Your task to perform on an android device: move an email to a new category in the gmail app Image 0: 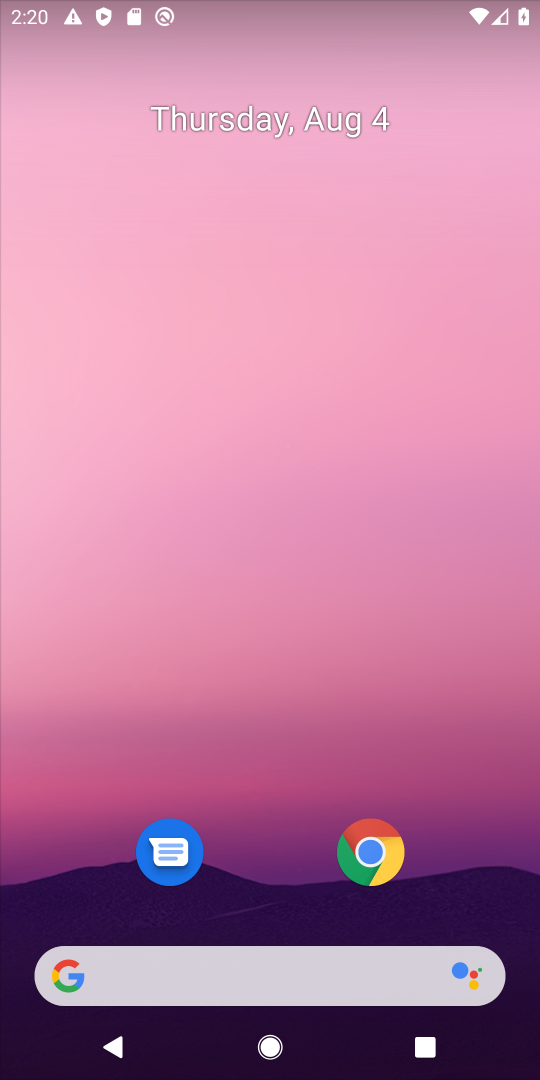
Step 0: drag from (300, 917) to (293, 29)
Your task to perform on an android device: move an email to a new category in the gmail app Image 1: 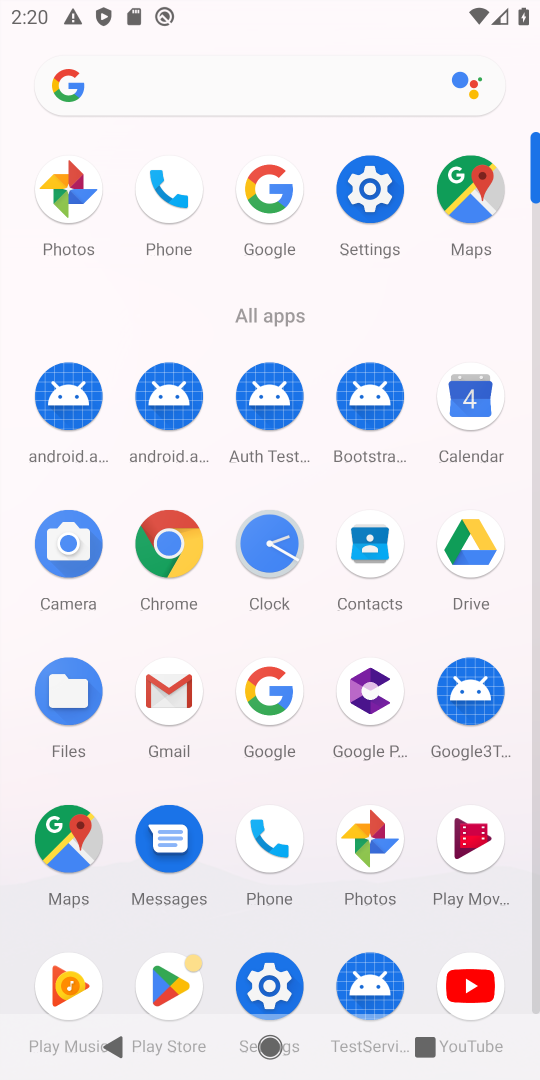
Step 1: click (176, 686)
Your task to perform on an android device: move an email to a new category in the gmail app Image 2: 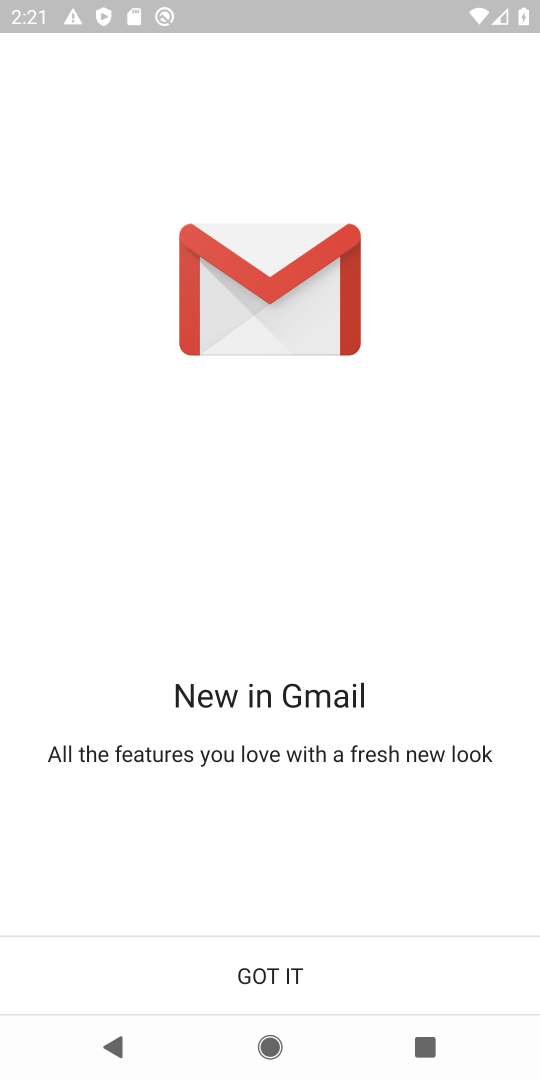
Step 2: click (269, 977)
Your task to perform on an android device: move an email to a new category in the gmail app Image 3: 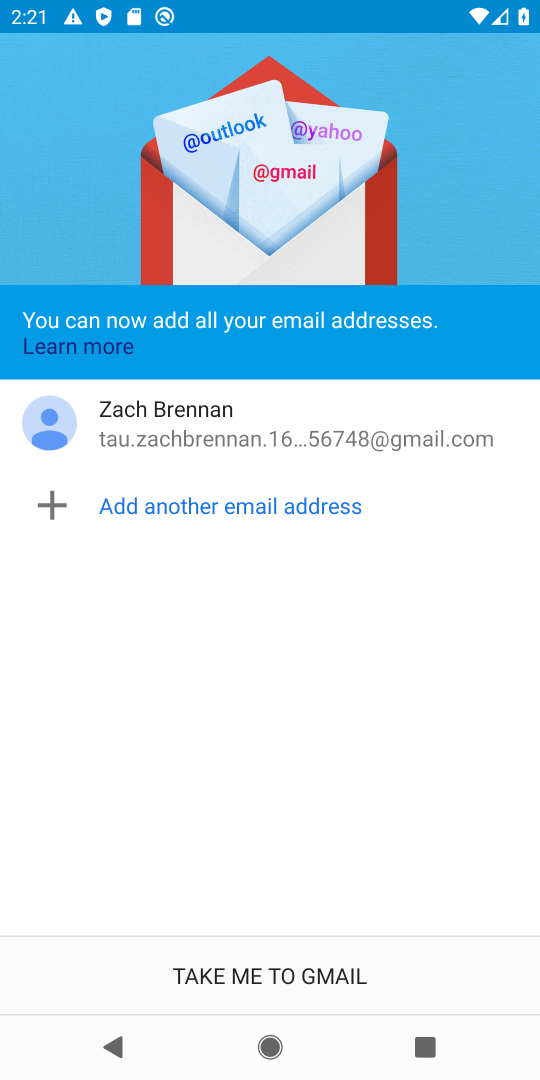
Step 3: click (272, 959)
Your task to perform on an android device: move an email to a new category in the gmail app Image 4: 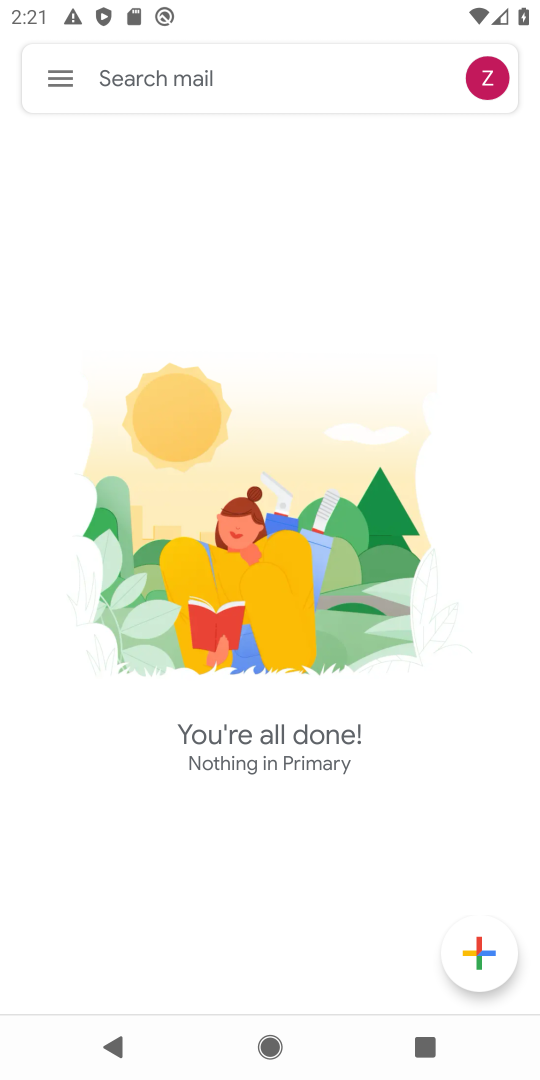
Step 4: click (47, 83)
Your task to perform on an android device: move an email to a new category in the gmail app Image 5: 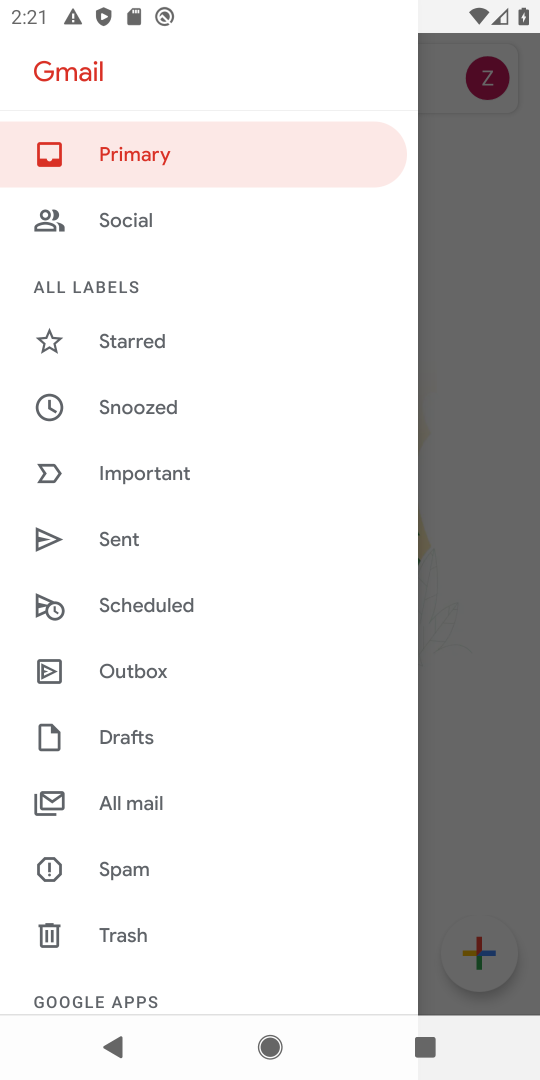
Step 5: click (142, 808)
Your task to perform on an android device: move an email to a new category in the gmail app Image 6: 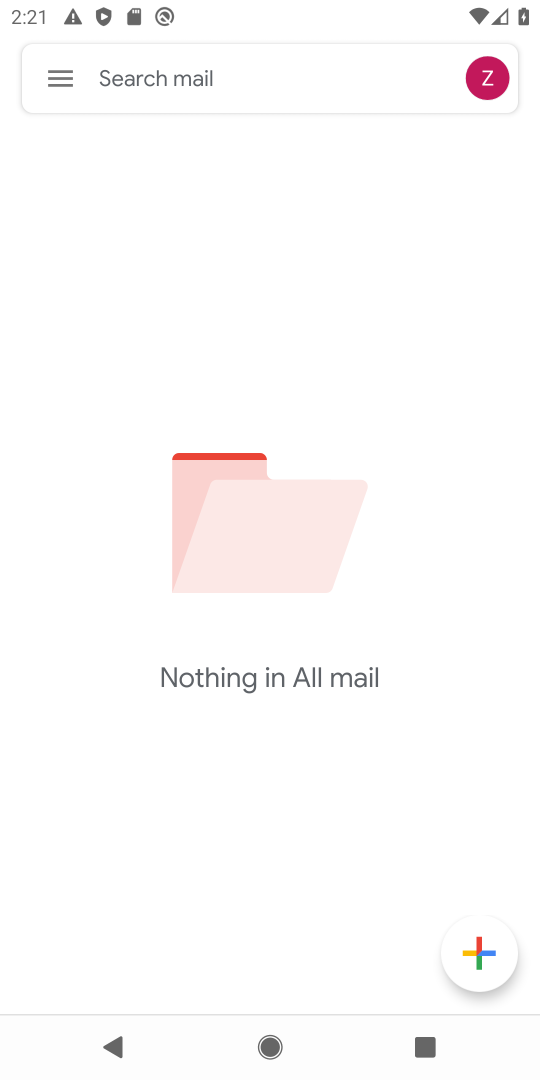
Step 6: task complete